Your task to perform on an android device: turn on location history Image 0: 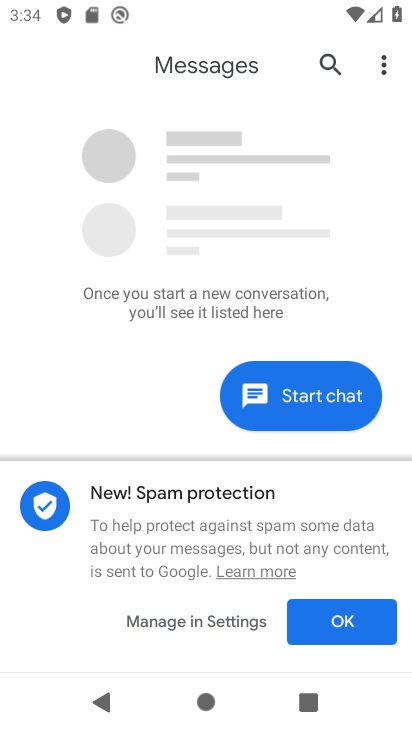
Step 0: press back button
Your task to perform on an android device: turn on location history Image 1: 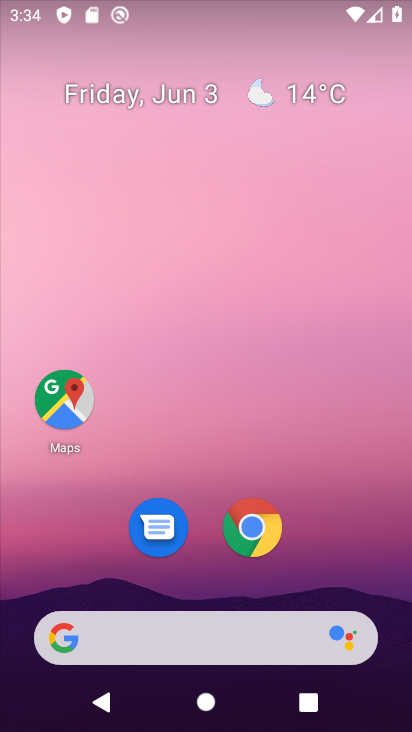
Step 1: drag from (336, 552) to (267, 66)
Your task to perform on an android device: turn on location history Image 2: 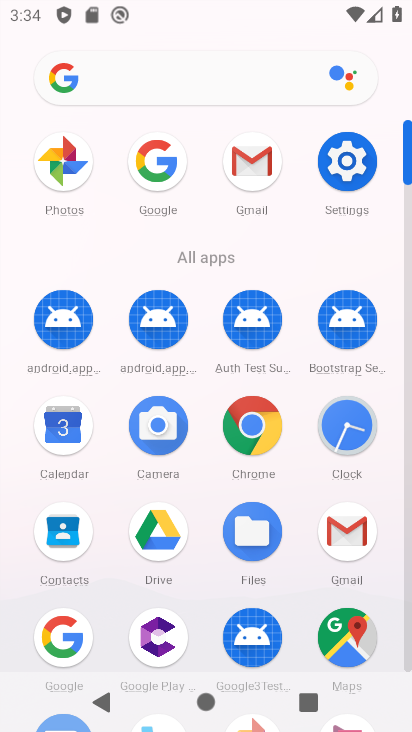
Step 2: click (346, 161)
Your task to perform on an android device: turn on location history Image 3: 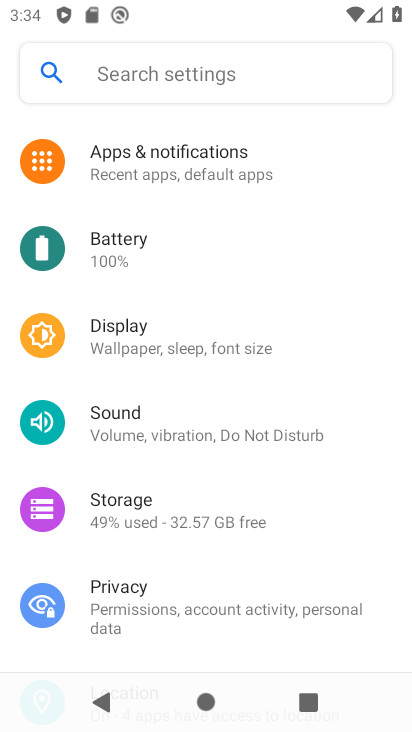
Step 3: drag from (171, 464) to (257, 345)
Your task to perform on an android device: turn on location history Image 4: 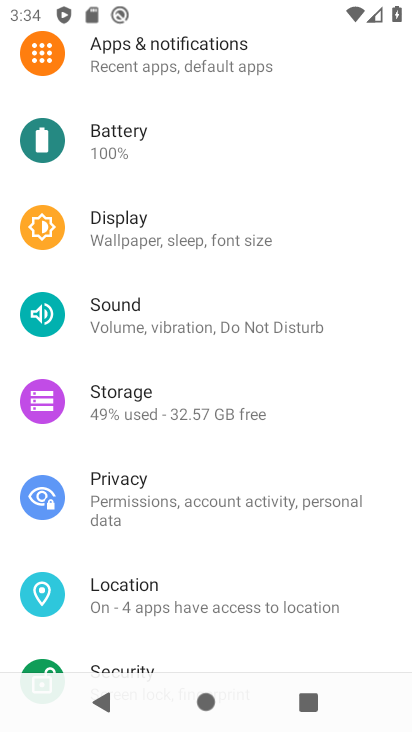
Step 4: drag from (182, 457) to (276, 334)
Your task to perform on an android device: turn on location history Image 5: 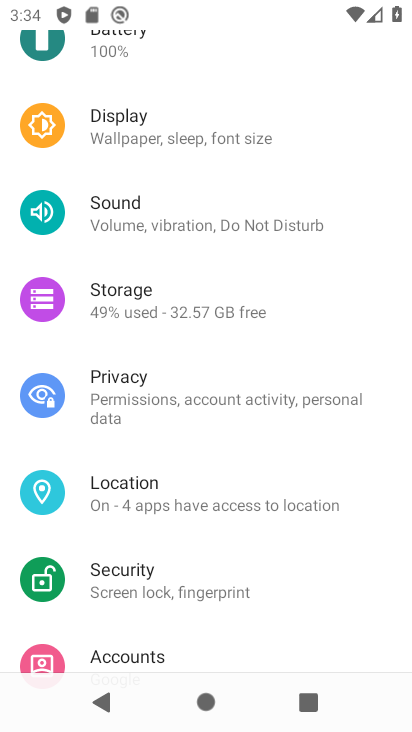
Step 5: click (189, 508)
Your task to perform on an android device: turn on location history Image 6: 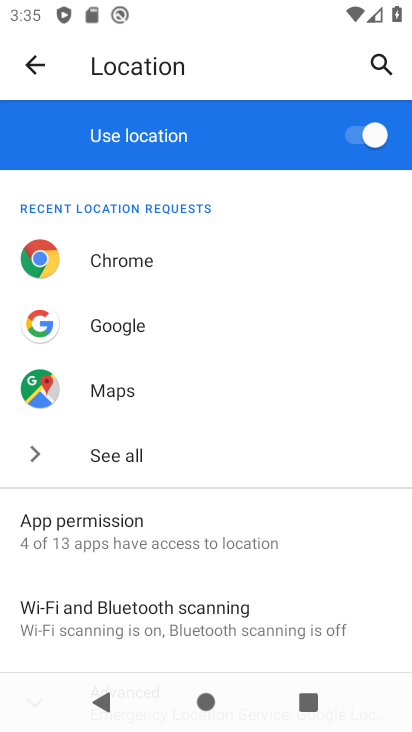
Step 6: drag from (139, 571) to (289, 380)
Your task to perform on an android device: turn on location history Image 7: 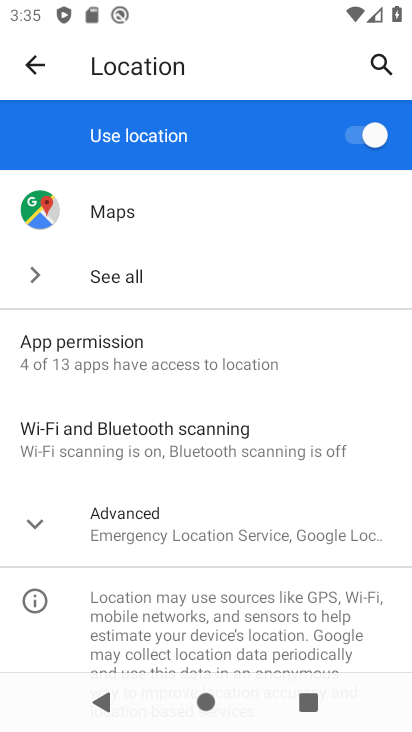
Step 7: click (202, 526)
Your task to perform on an android device: turn on location history Image 8: 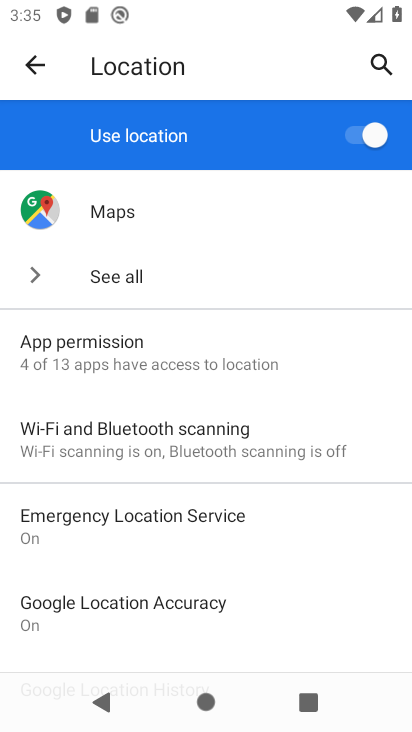
Step 8: drag from (170, 555) to (257, 457)
Your task to perform on an android device: turn on location history Image 9: 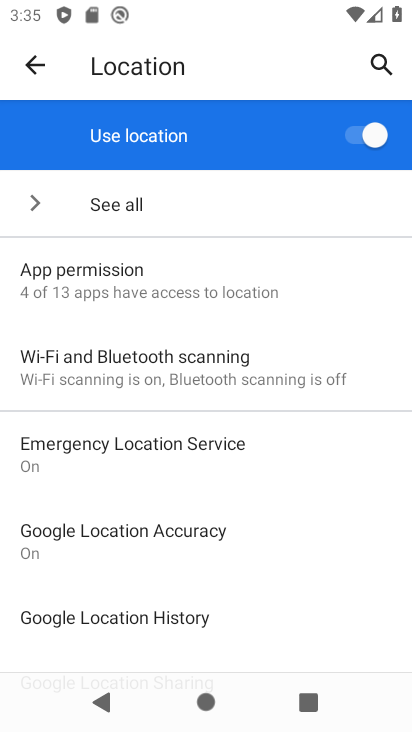
Step 9: click (150, 613)
Your task to perform on an android device: turn on location history Image 10: 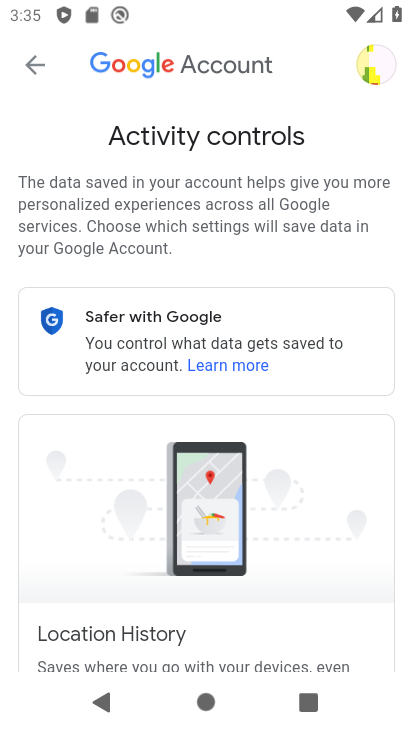
Step 10: task complete